Your task to perform on an android device: turn on notifications settings in the gmail app Image 0: 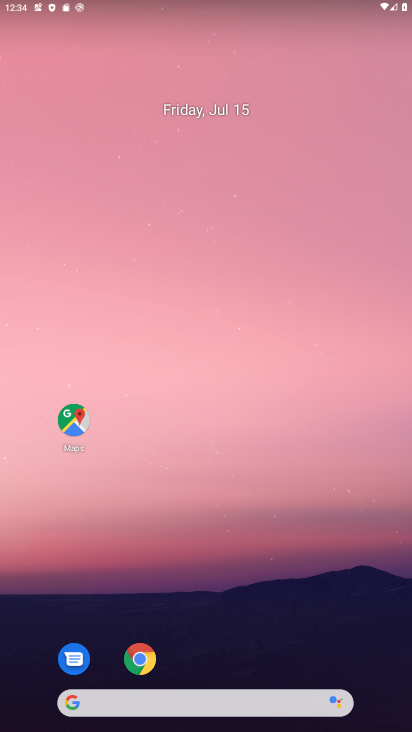
Step 0: drag from (218, 632) to (184, 242)
Your task to perform on an android device: turn on notifications settings in the gmail app Image 1: 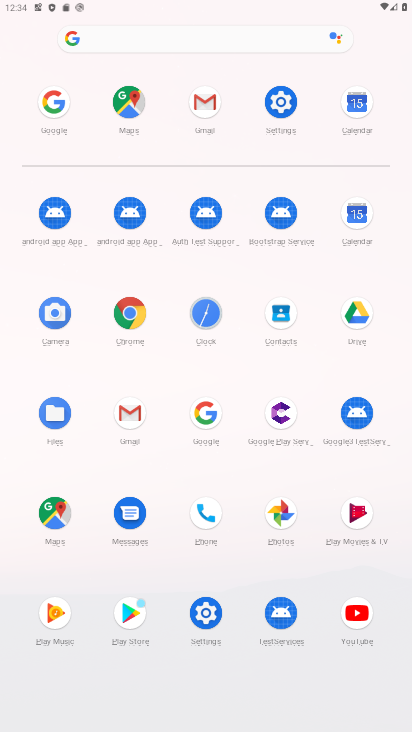
Step 1: click (216, 118)
Your task to perform on an android device: turn on notifications settings in the gmail app Image 2: 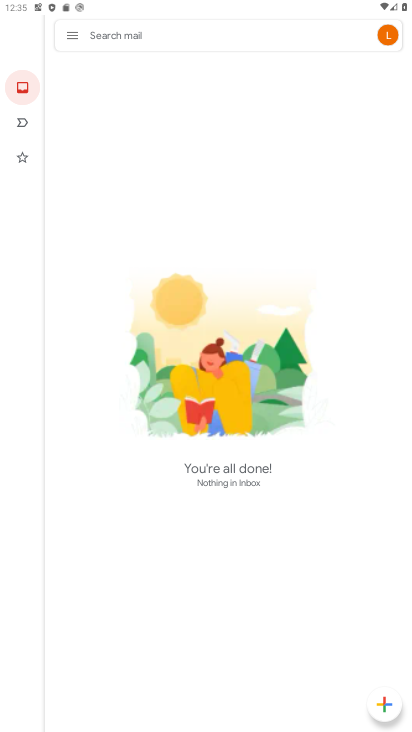
Step 2: click (62, 40)
Your task to perform on an android device: turn on notifications settings in the gmail app Image 3: 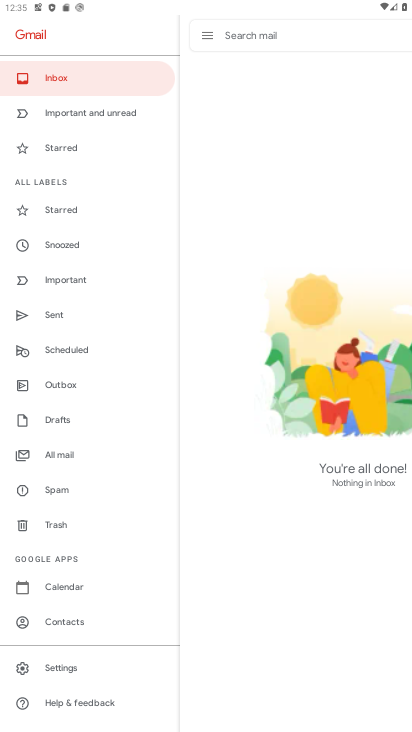
Step 3: click (79, 665)
Your task to perform on an android device: turn on notifications settings in the gmail app Image 4: 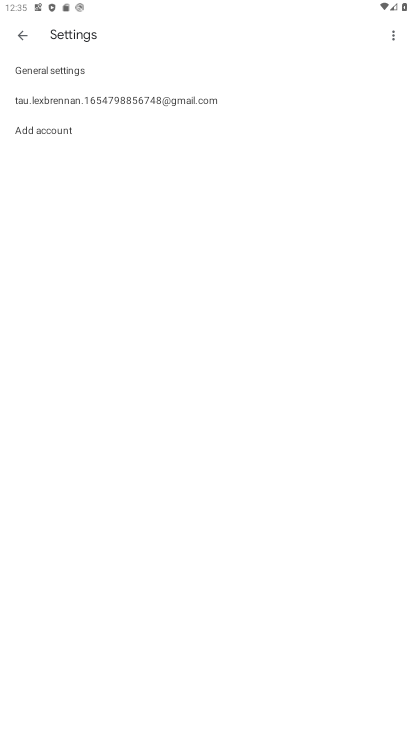
Step 4: click (106, 109)
Your task to perform on an android device: turn on notifications settings in the gmail app Image 5: 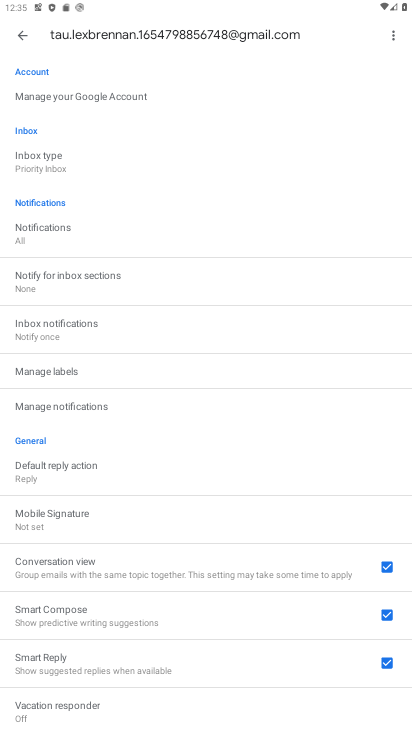
Step 5: click (111, 412)
Your task to perform on an android device: turn on notifications settings in the gmail app Image 6: 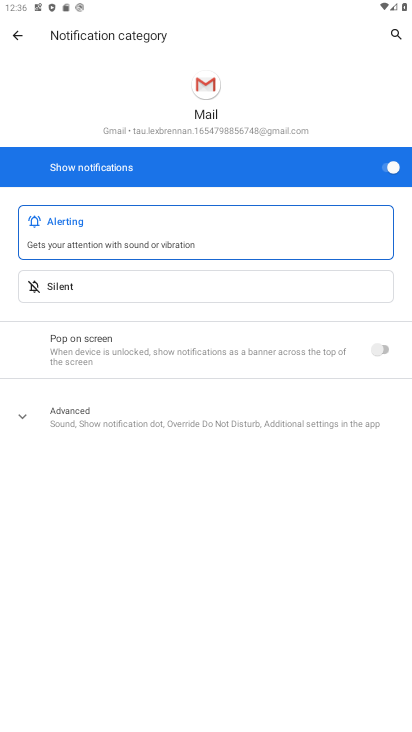
Step 6: task complete